Your task to perform on an android device: add a contact Image 0: 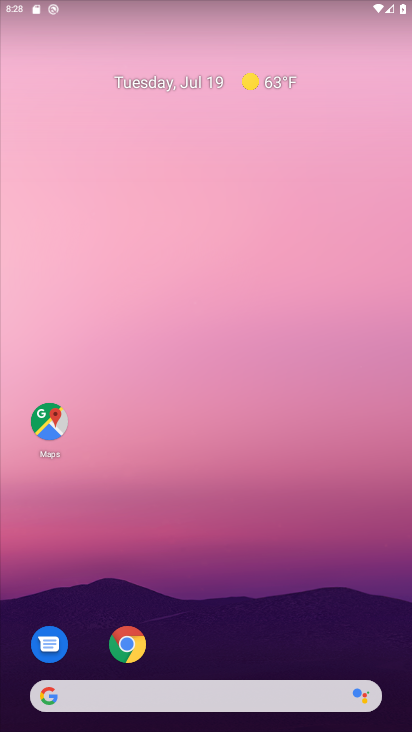
Step 0: drag from (251, 687) to (4, 48)
Your task to perform on an android device: add a contact Image 1: 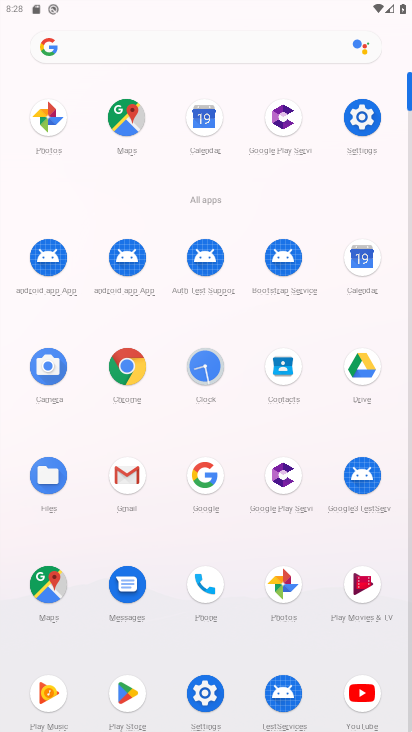
Step 1: click (285, 364)
Your task to perform on an android device: add a contact Image 2: 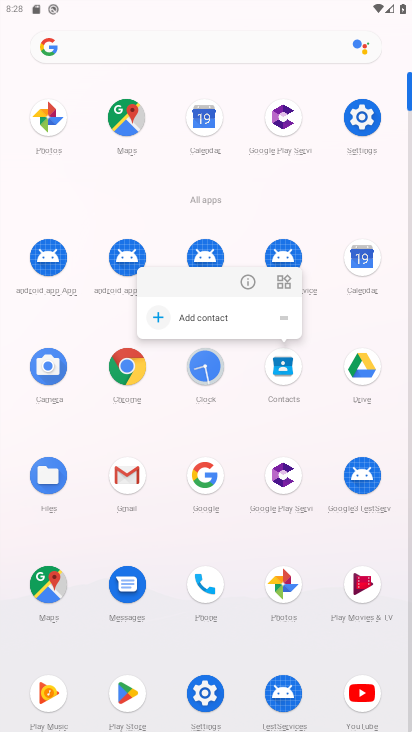
Step 2: click (285, 364)
Your task to perform on an android device: add a contact Image 3: 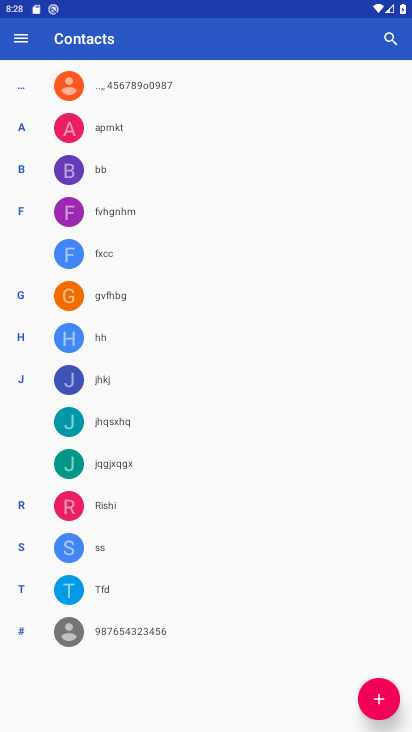
Step 3: click (381, 688)
Your task to perform on an android device: add a contact Image 4: 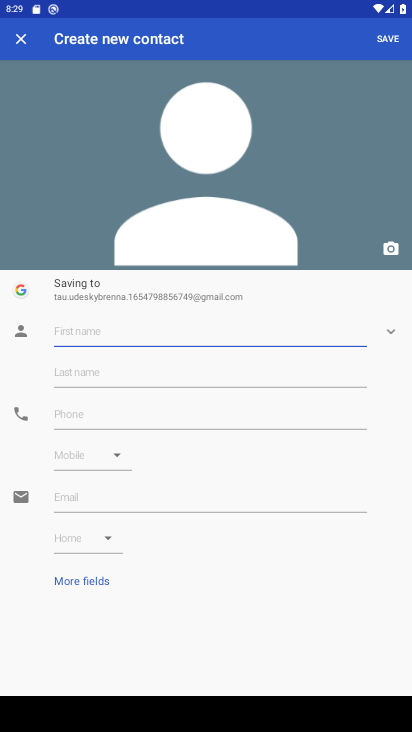
Step 4: type "Zest"
Your task to perform on an android device: add a contact Image 5: 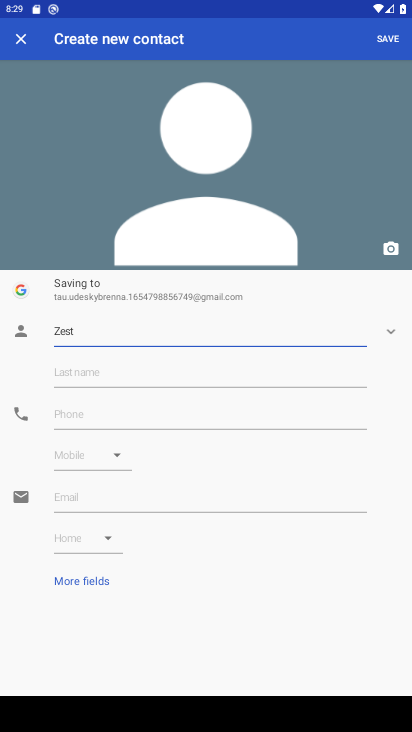
Step 5: click (315, 378)
Your task to perform on an android device: add a contact Image 6: 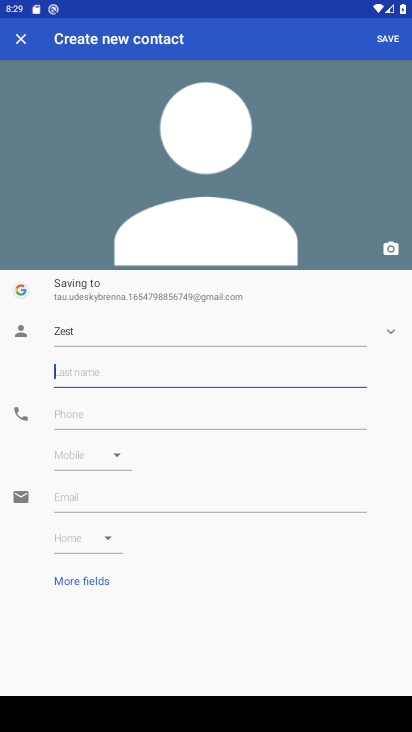
Step 6: type "Sawarkar"
Your task to perform on an android device: add a contact Image 7: 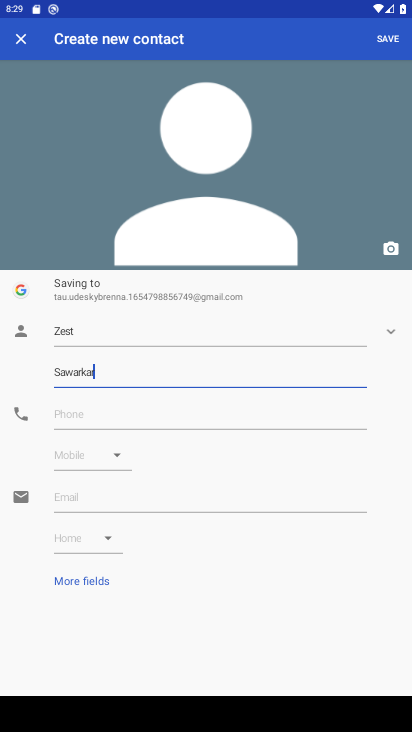
Step 7: click (335, 422)
Your task to perform on an android device: add a contact Image 8: 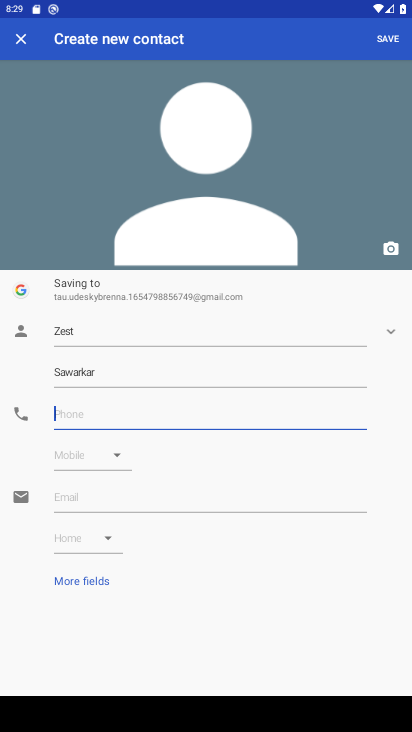
Step 8: type "09988776655"
Your task to perform on an android device: add a contact Image 9: 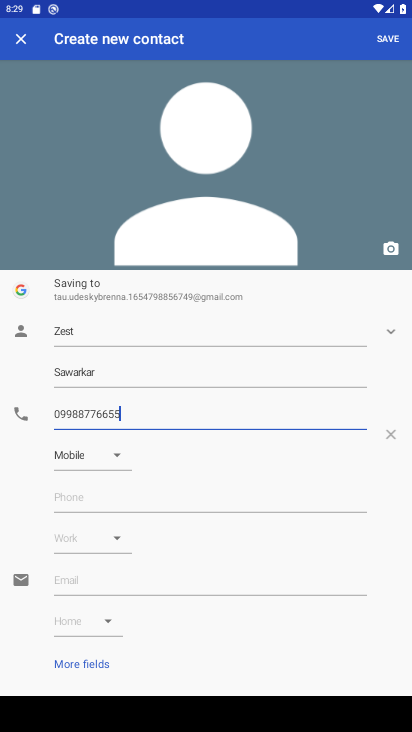
Step 9: click (389, 42)
Your task to perform on an android device: add a contact Image 10: 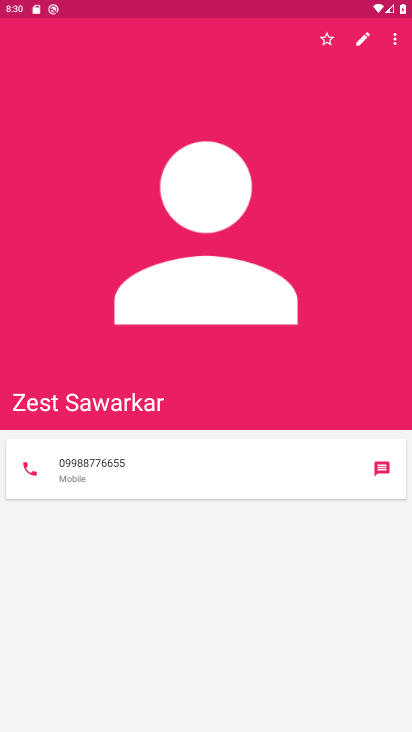
Step 10: task complete